Your task to perform on an android device: allow notifications from all sites in the chrome app Image 0: 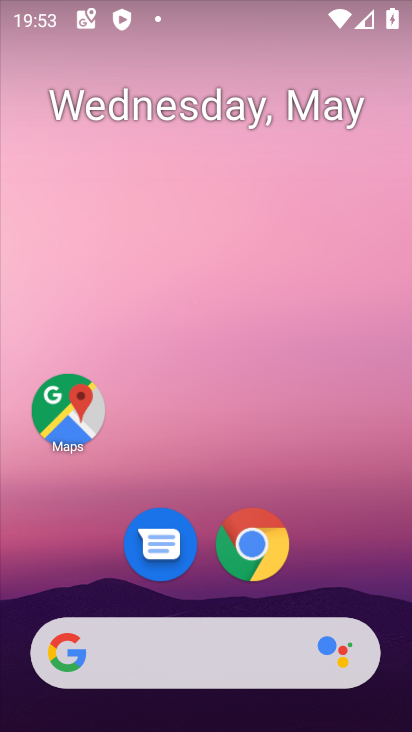
Step 0: click (252, 534)
Your task to perform on an android device: allow notifications from all sites in the chrome app Image 1: 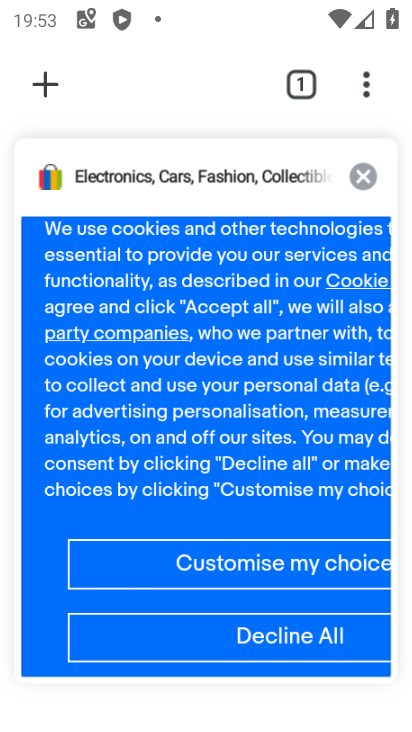
Step 1: click (375, 76)
Your task to perform on an android device: allow notifications from all sites in the chrome app Image 2: 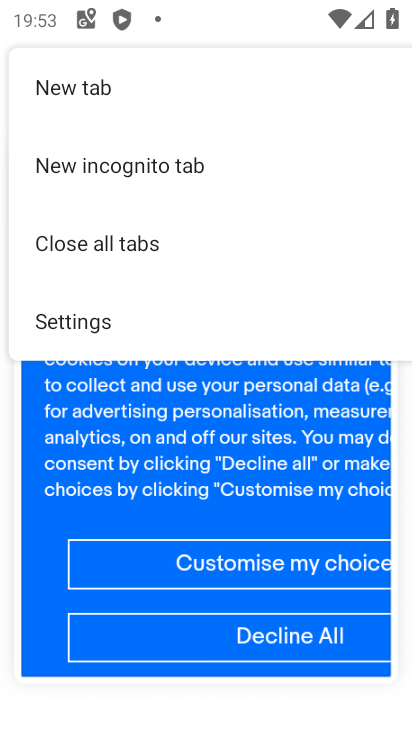
Step 2: click (129, 321)
Your task to perform on an android device: allow notifications from all sites in the chrome app Image 3: 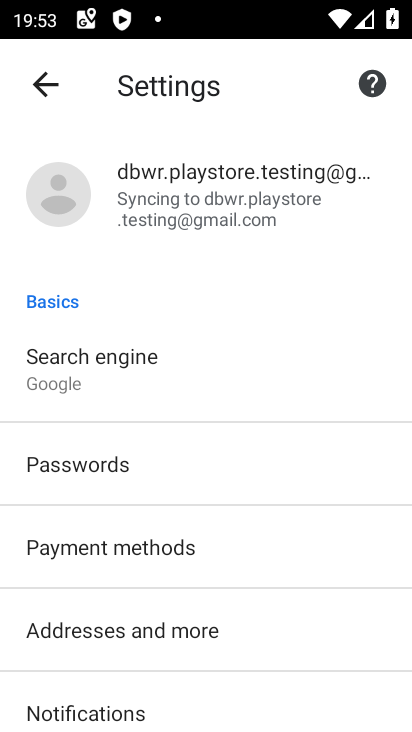
Step 3: drag from (153, 596) to (197, 242)
Your task to perform on an android device: allow notifications from all sites in the chrome app Image 4: 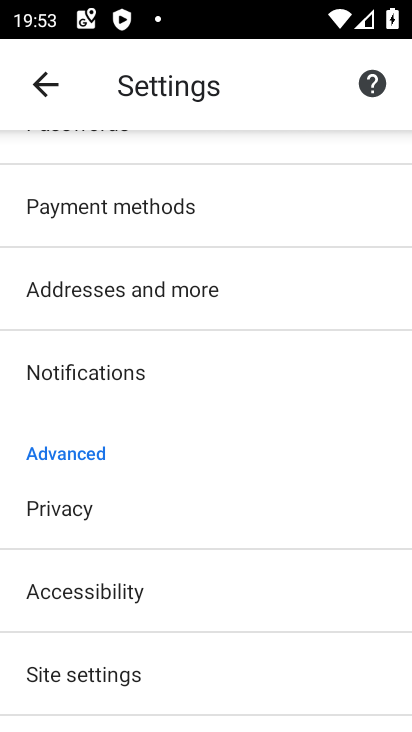
Step 4: click (82, 364)
Your task to perform on an android device: allow notifications from all sites in the chrome app Image 5: 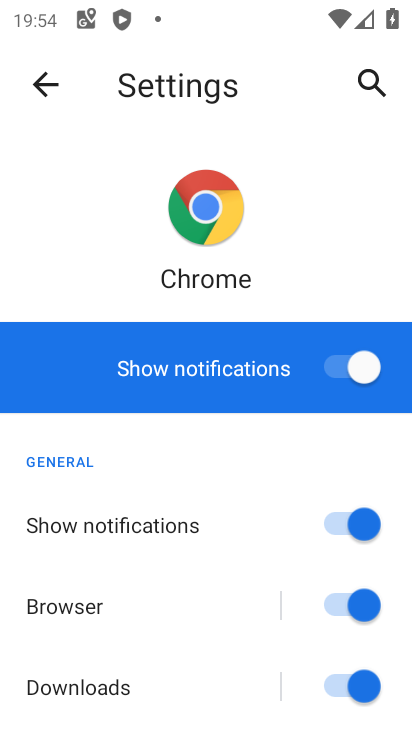
Step 5: task complete